Your task to perform on an android device: change the clock display to analog Image 0: 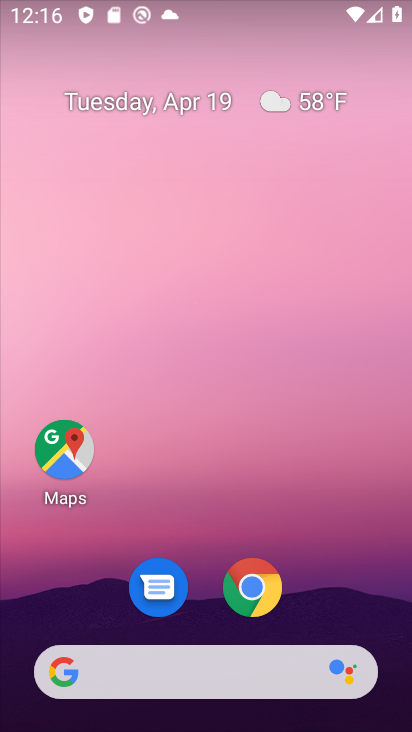
Step 0: press home button
Your task to perform on an android device: change the clock display to analog Image 1: 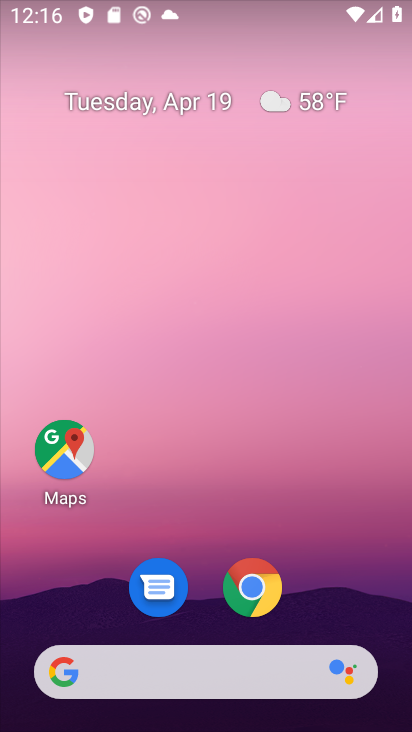
Step 1: click (358, 123)
Your task to perform on an android device: change the clock display to analog Image 2: 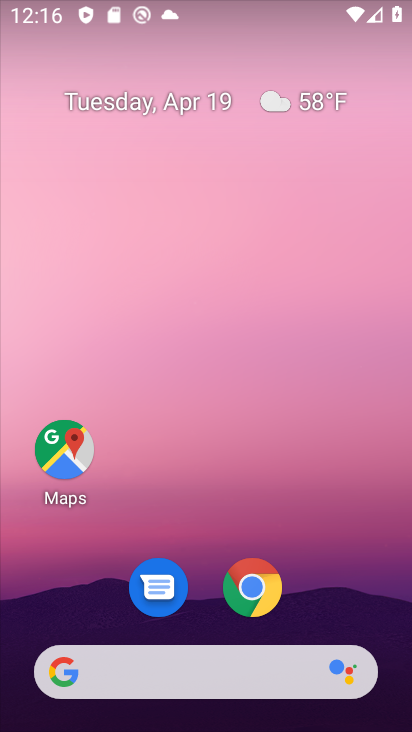
Step 2: drag from (361, 561) to (362, 171)
Your task to perform on an android device: change the clock display to analog Image 3: 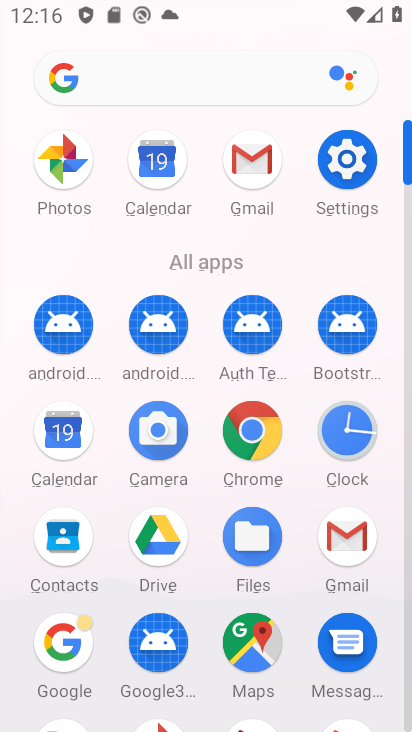
Step 3: click (344, 441)
Your task to perform on an android device: change the clock display to analog Image 4: 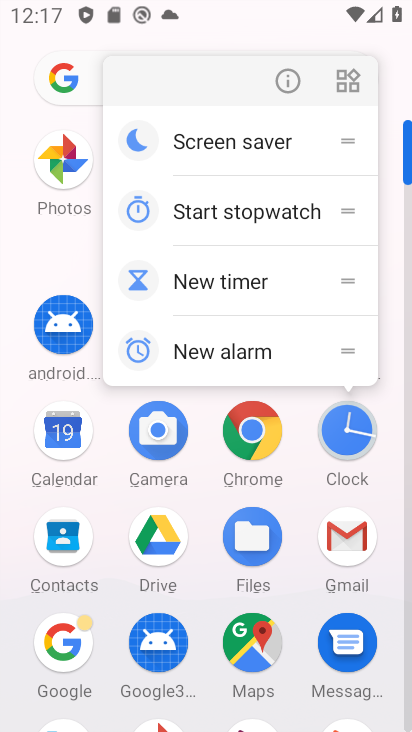
Step 4: click (349, 439)
Your task to perform on an android device: change the clock display to analog Image 5: 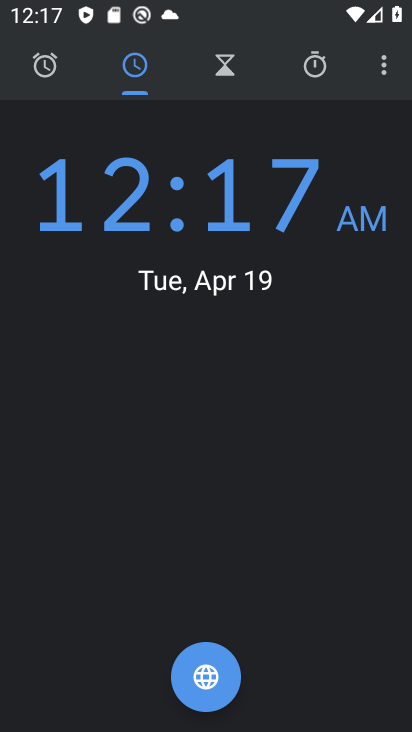
Step 5: click (391, 69)
Your task to perform on an android device: change the clock display to analog Image 6: 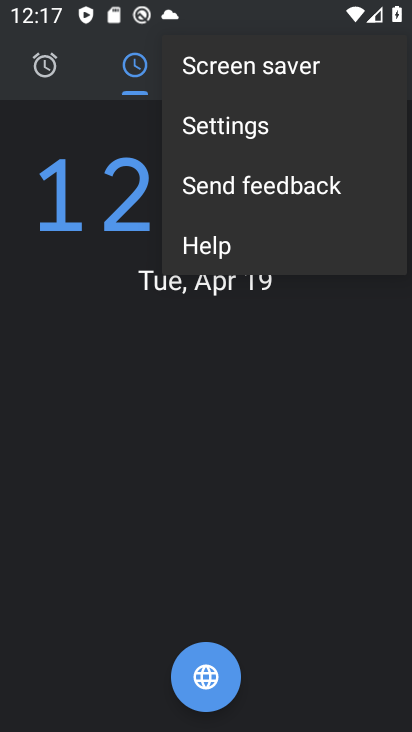
Step 6: click (196, 125)
Your task to perform on an android device: change the clock display to analog Image 7: 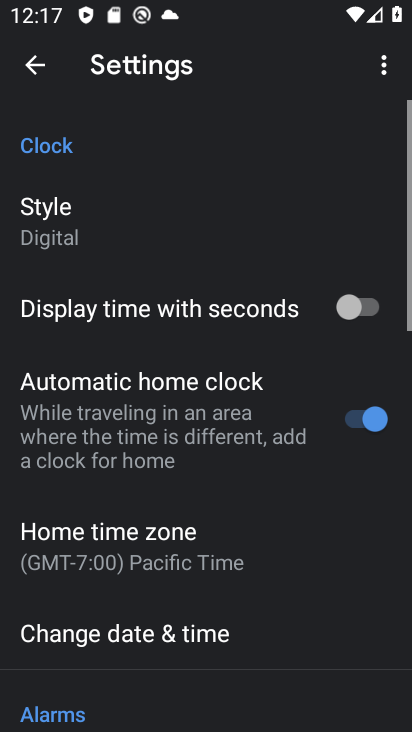
Step 7: click (62, 225)
Your task to perform on an android device: change the clock display to analog Image 8: 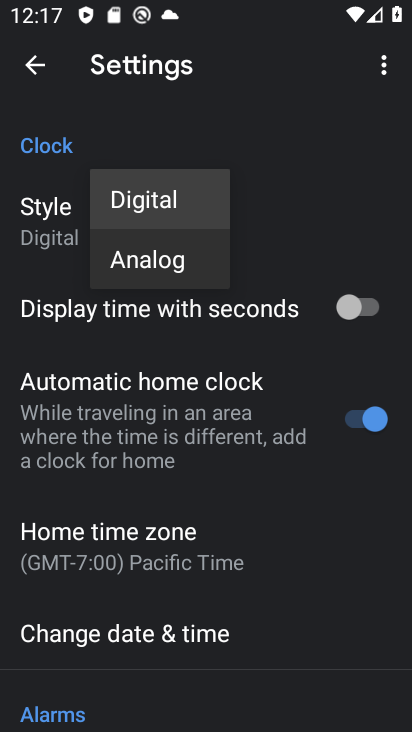
Step 8: click (148, 272)
Your task to perform on an android device: change the clock display to analog Image 9: 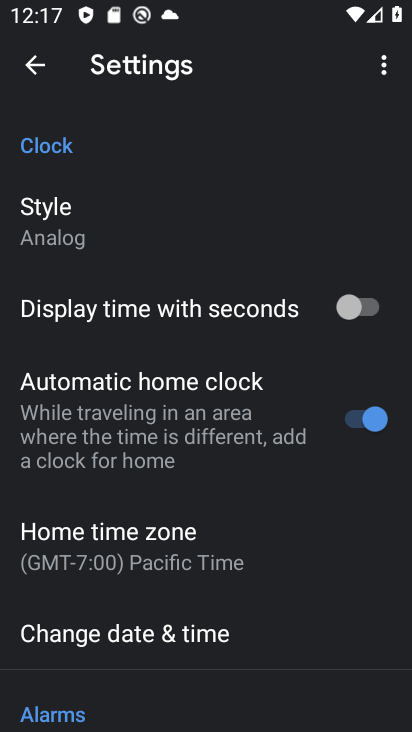
Step 9: task complete